Your task to perform on an android device: turn off javascript in the chrome app Image 0: 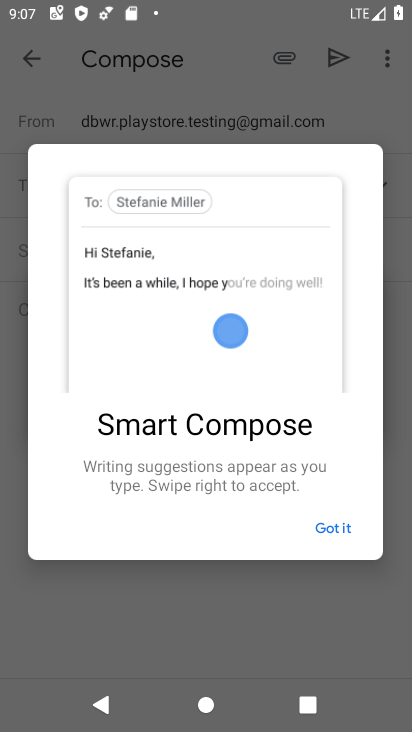
Step 0: press home button
Your task to perform on an android device: turn off javascript in the chrome app Image 1: 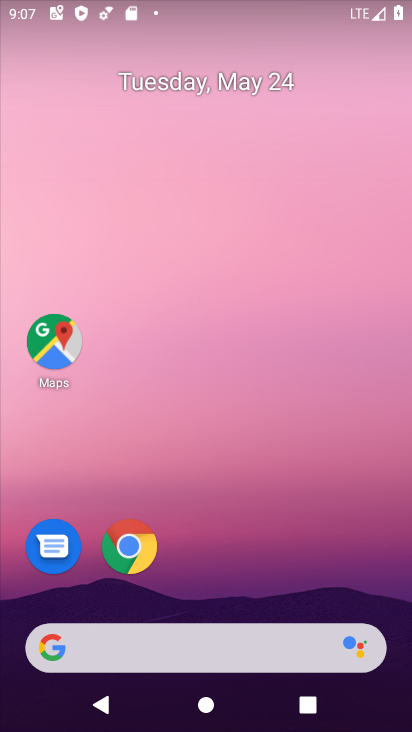
Step 1: click (131, 538)
Your task to perform on an android device: turn off javascript in the chrome app Image 2: 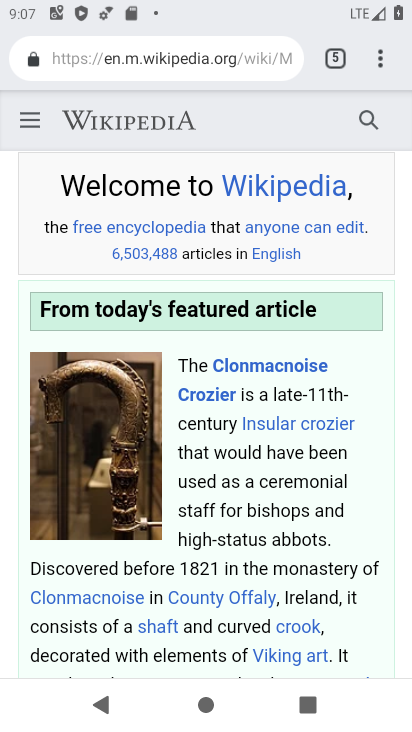
Step 2: click (377, 58)
Your task to perform on an android device: turn off javascript in the chrome app Image 3: 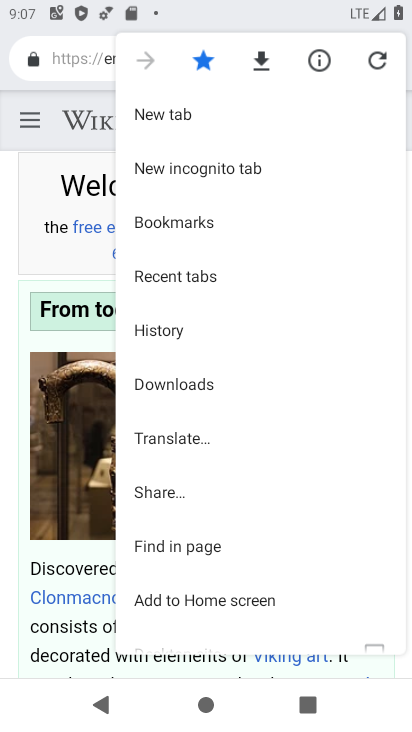
Step 3: drag from (256, 522) to (271, 255)
Your task to perform on an android device: turn off javascript in the chrome app Image 4: 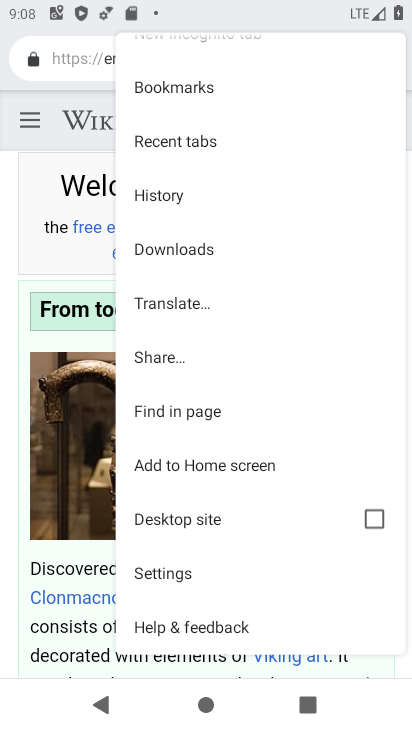
Step 4: click (219, 570)
Your task to perform on an android device: turn off javascript in the chrome app Image 5: 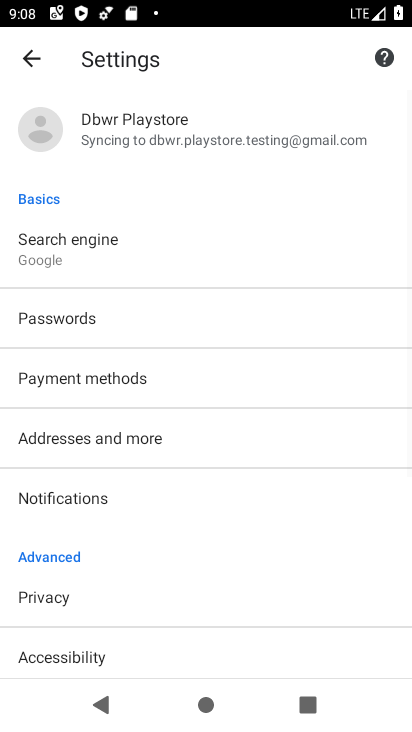
Step 5: drag from (228, 563) to (273, 266)
Your task to perform on an android device: turn off javascript in the chrome app Image 6: 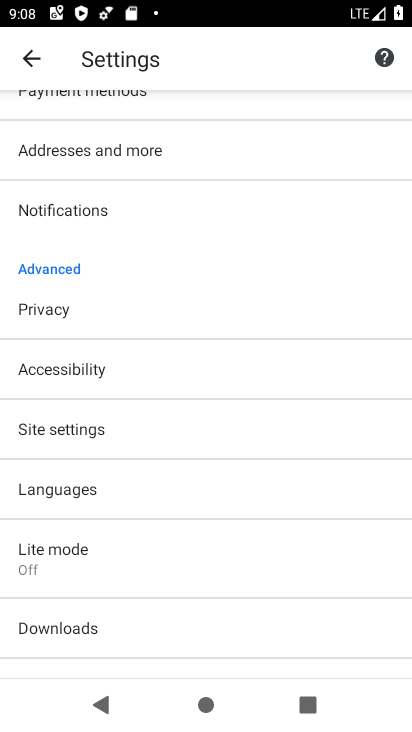
Step 6: click (237, 422)
Your task to perform on an android device: turn off javascript in the chrome app Image 7: 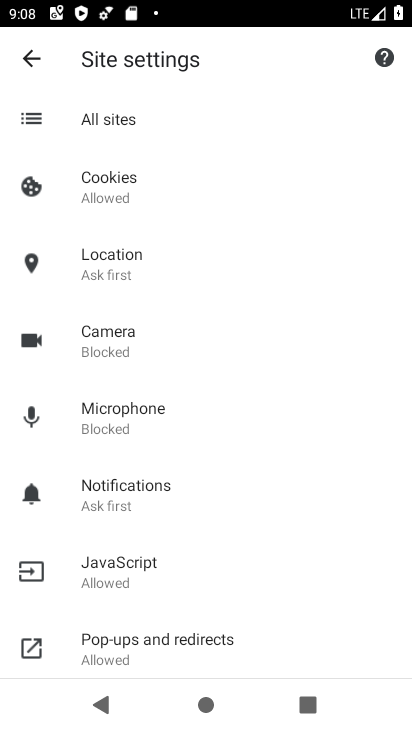
Step 7: click (199, 574)
Your task to perform on an android device: turn off javascript in the chrome app Image 8: 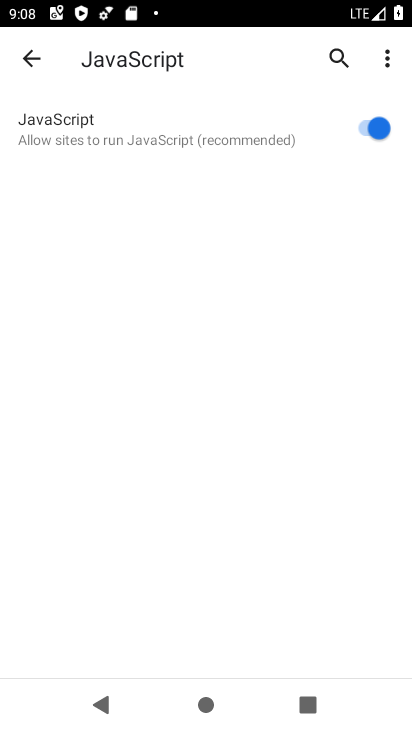
Step 8: click (369, 126)
Your task to perform on an android device: turn off javascript in the chrome app Image 9: 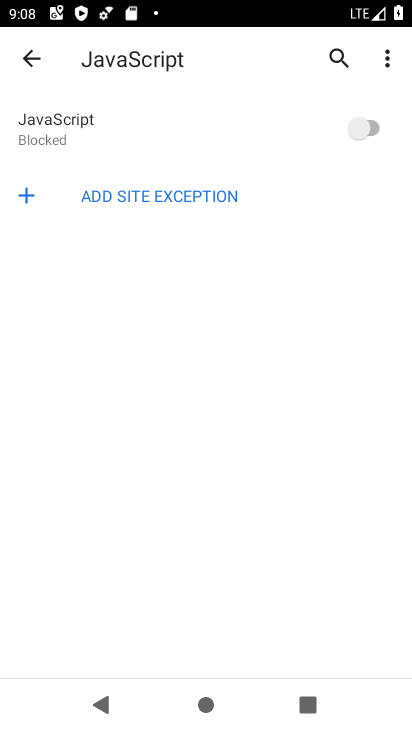
Step 9: task complete